Your task to perform on an android device: Open Google Chrome and click the shortcut for Amazon.com Image 0: 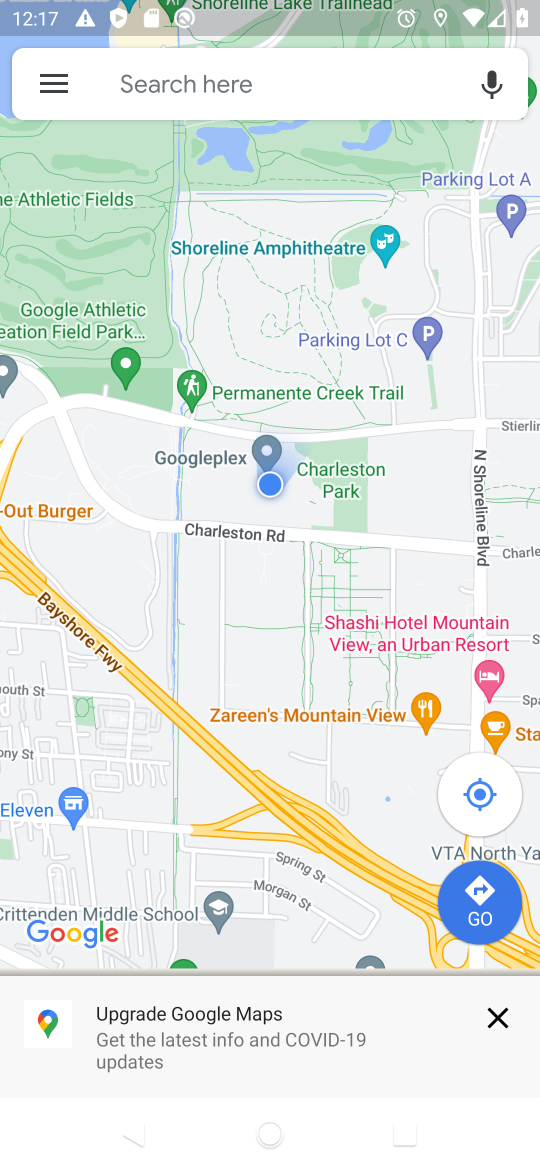
Step 0: task complete